Your task to perform on an android device: check battery use Image 0: 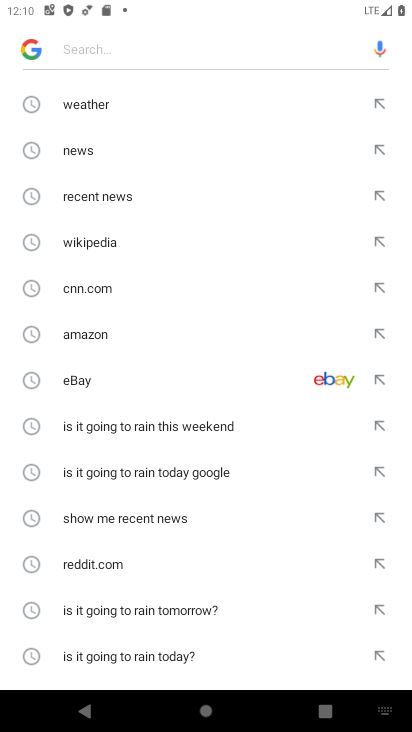
Step 0: press back button
Your task to perform on an android device: check battery use Image 1: 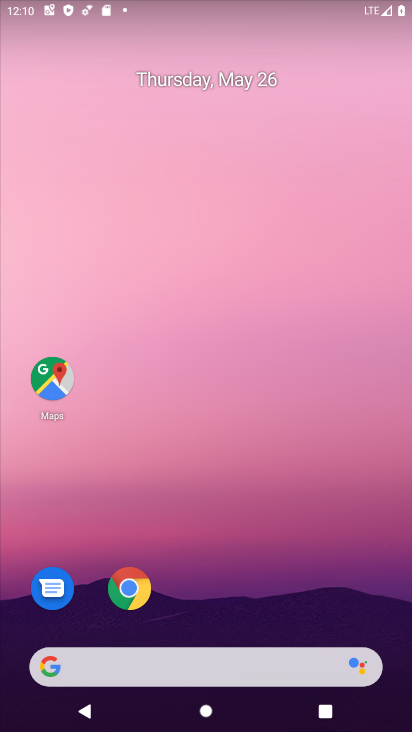
Step 1: drag from (159, 98) to (148, 25)
Your task to perform on an android device: check battery use Image 2: 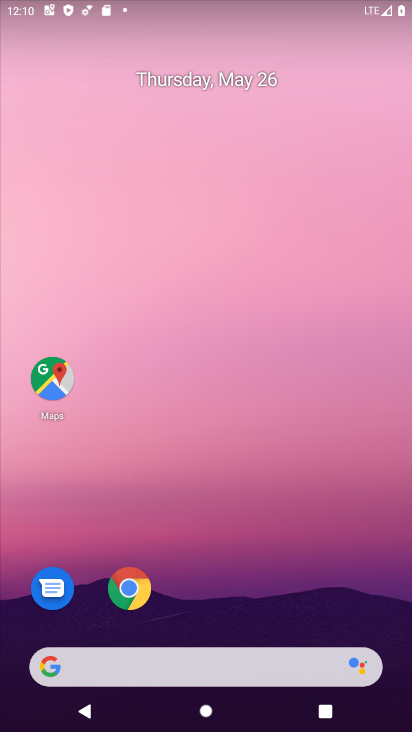
Step 2: drag from (207, 445) to (127, 14)
Your task to perform on an android device: check battery use Image 3: 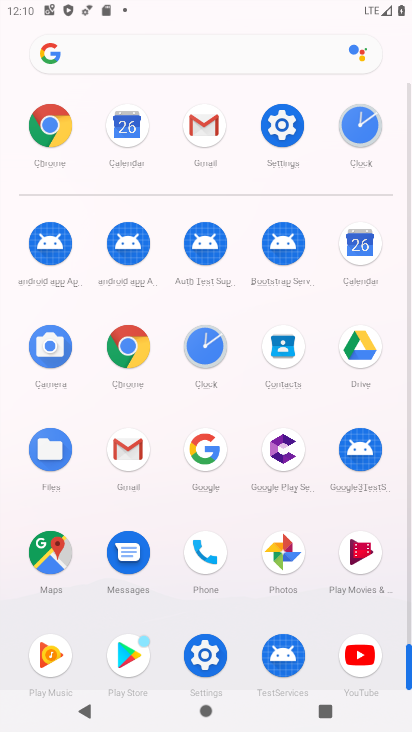
Step 3: click (279, 125)
Your task to perform on an android device: check battery use Image 4: 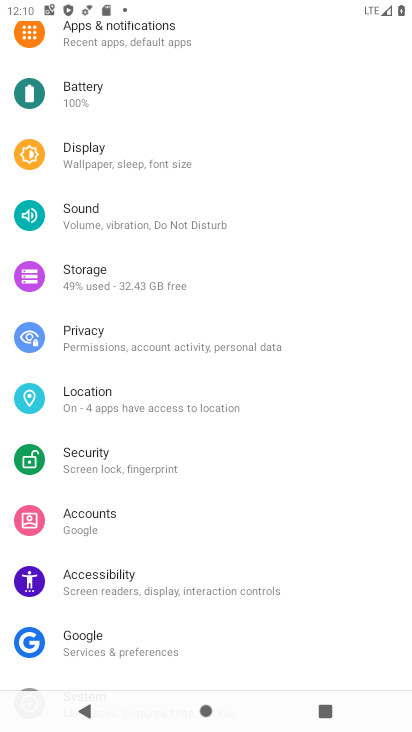
Step 4: click (154, 105)
Your task to perform on an android device: check battery use Image 5: 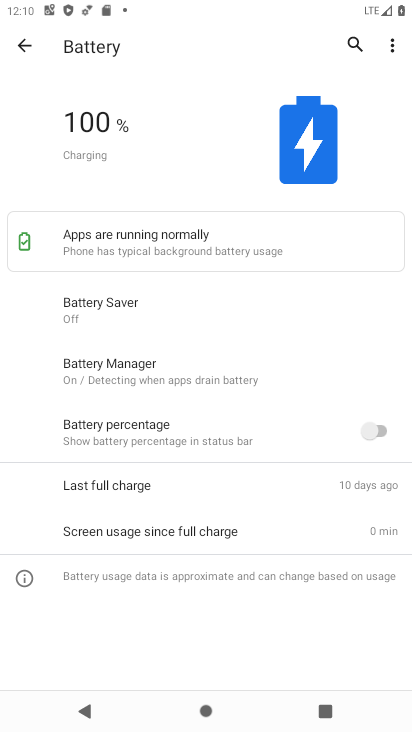
Step 5: task complete